Your task to perform on an android device: change the clock display to show seconds Image 0: 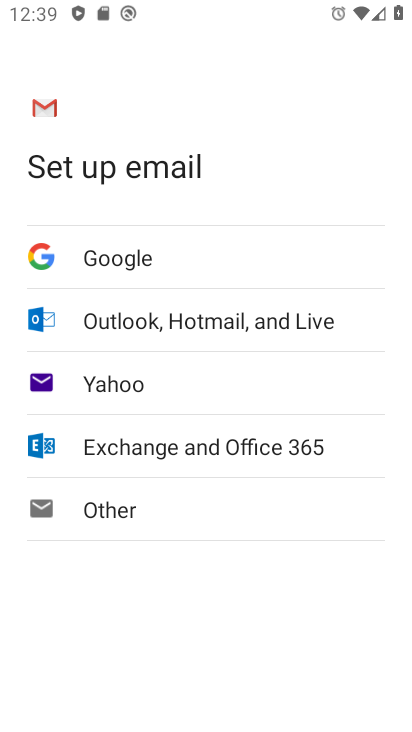
Step 0: press home button
Your task to perform on an android device: change the clock display to show seconds Image 1: 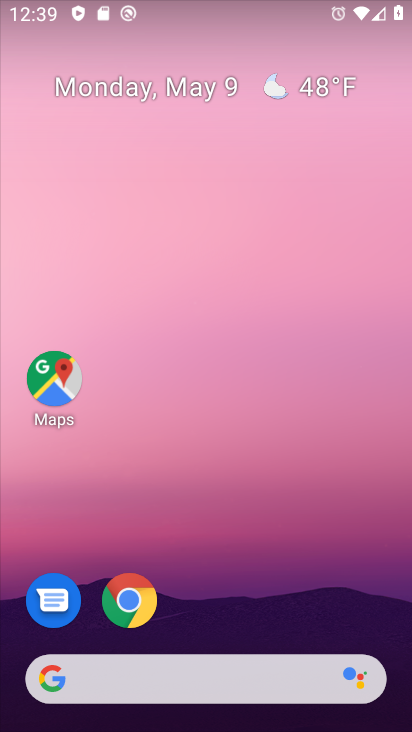
Step 1: drag from (285, 533) to (250, 11)
Your task to perform on an android device: change the clock display to show seconds Image 2: 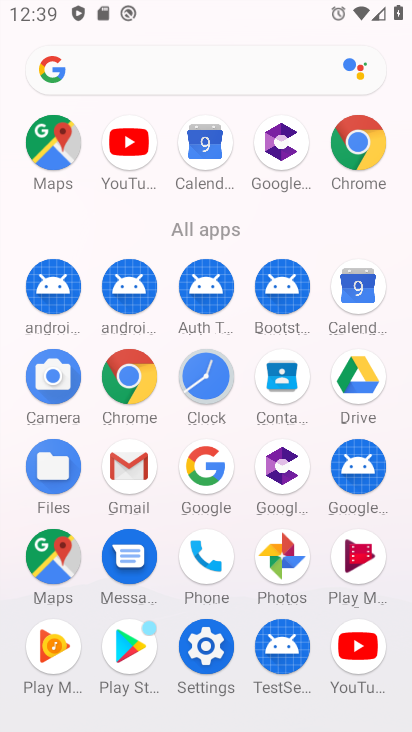
Step 2: drag from (105, 498) to (183, 164)
Your task to perform on an android device: change the clock display to show seconds Image 3: 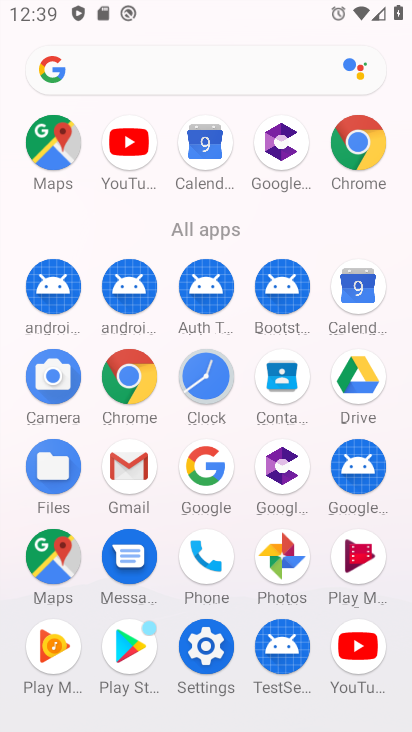
Step 3: drag from (105, 512) to (275, 176)
Your task to perform on an android device: change the clock display to show seconds Image 4: 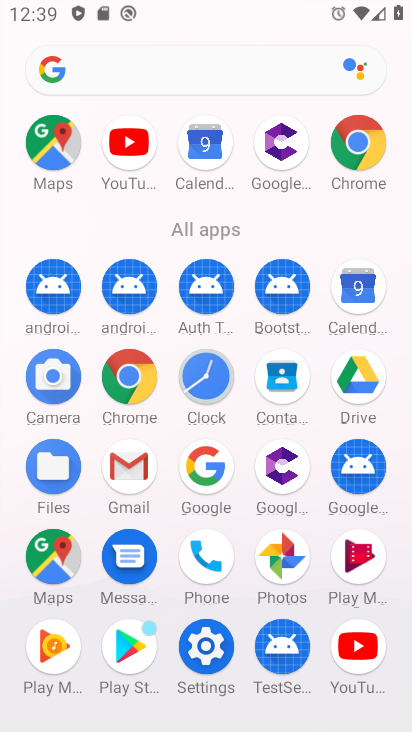
Step 4: drag from (201, 422) to (316, 9)
Your task to perform on an android device: change the clock display to show seconds Image 5: 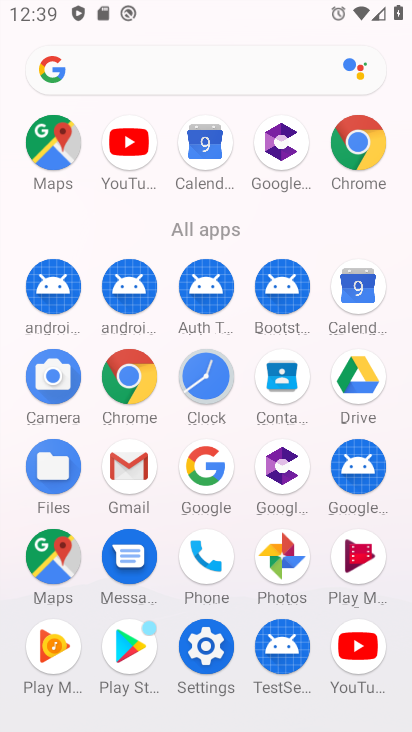
Step 5: click (88, 71)
Your task to perform on an android device: change the clock display to show seconds Image 6: 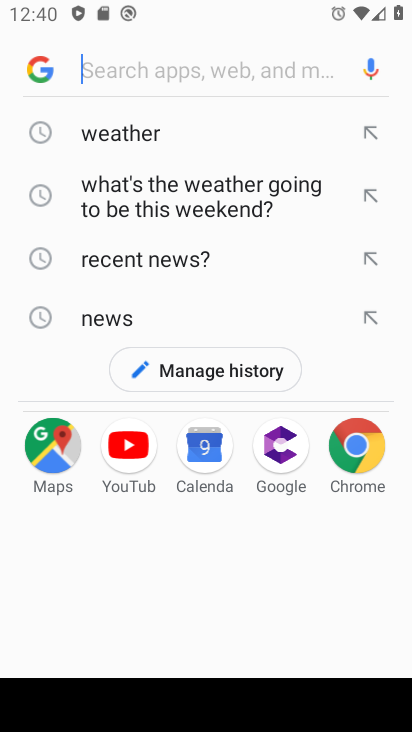
Step 6: type "change the clock display"
Your task to perform on an android device: change the clock display to show seconds Image 7: 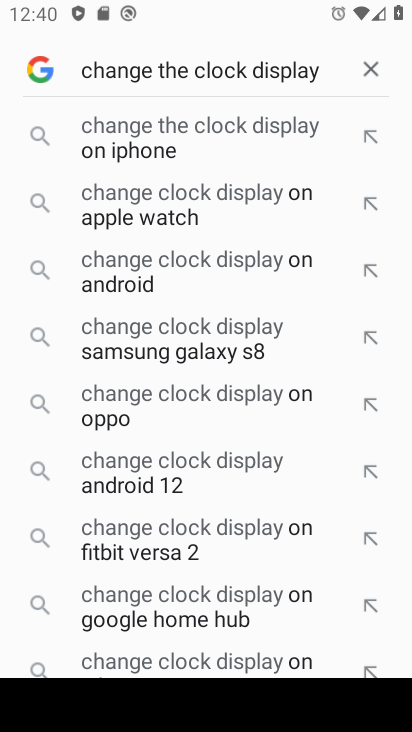
Step 7: type "change the clock display"
Your task to perform on an android device: change the clock display to show seconds Image 8: 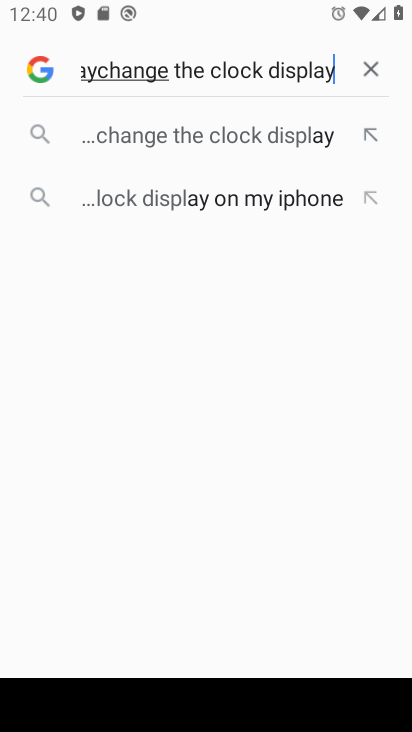
Step 8: type ""
Your task to perform on an android device: change the clock display to show seconds Image 9: 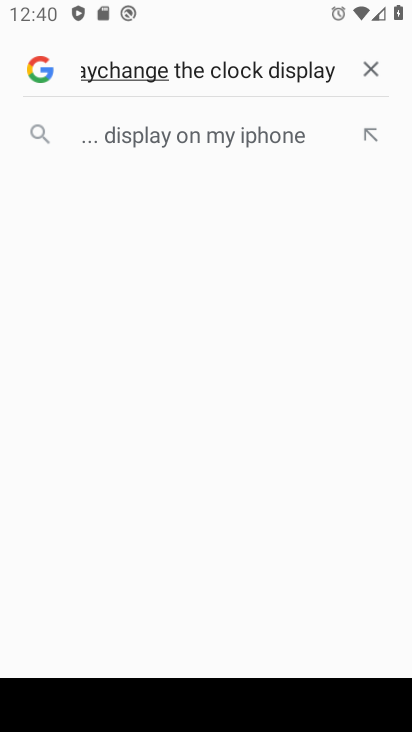
Step 9: type ""
Your task to perform on an android device: change the clock display to show seconds Image 10: 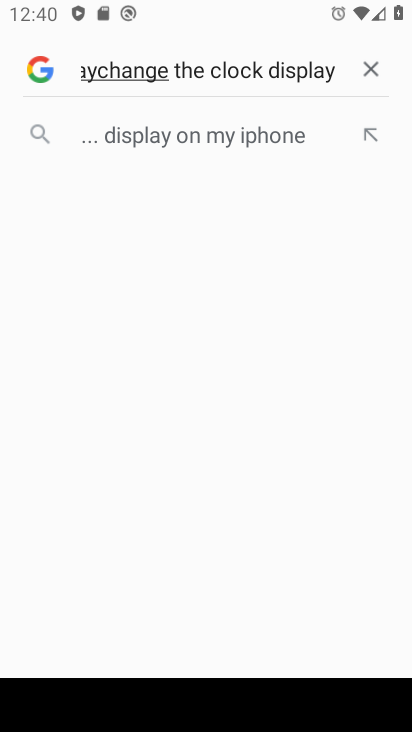
Step 10: type ""
Your task to perform on an android device: change the clock display to show seconds Image 11: 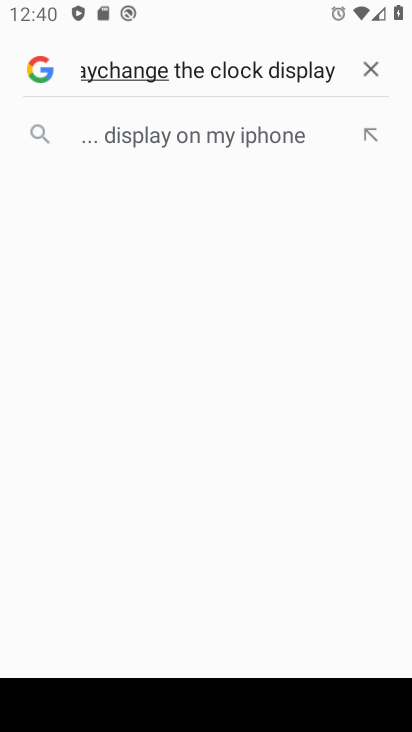
Step 11: type ""
Your task to perform on an android device: change the clock display to show seconds Image 12: 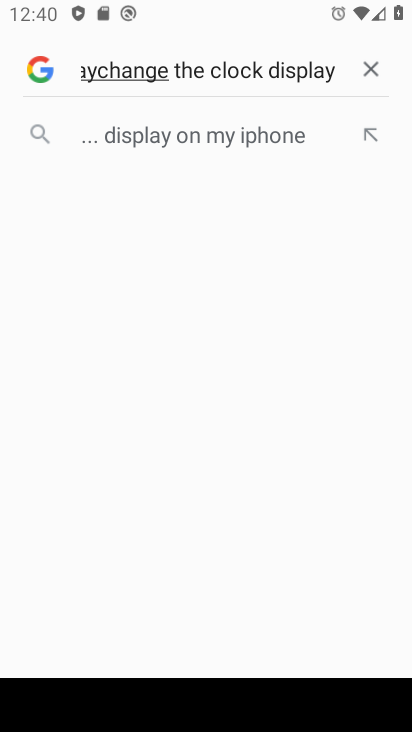
Step 12: type ""
Your task to perform on an android device: change the clock display to show seconds Image 13: 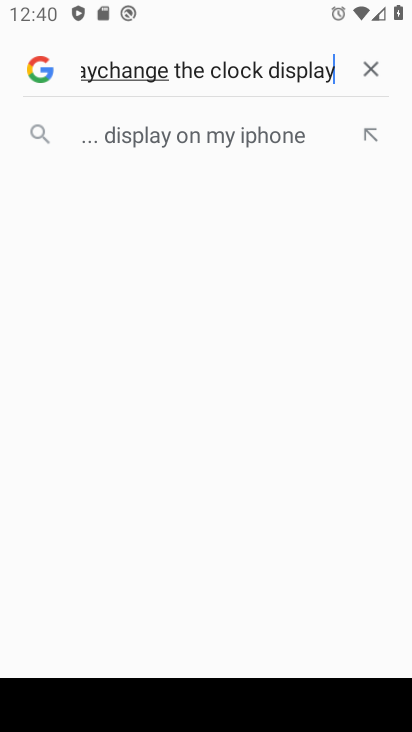
Step 13: type ""
Your task to perform on an android device: change the clock display to show seconds Image 14: 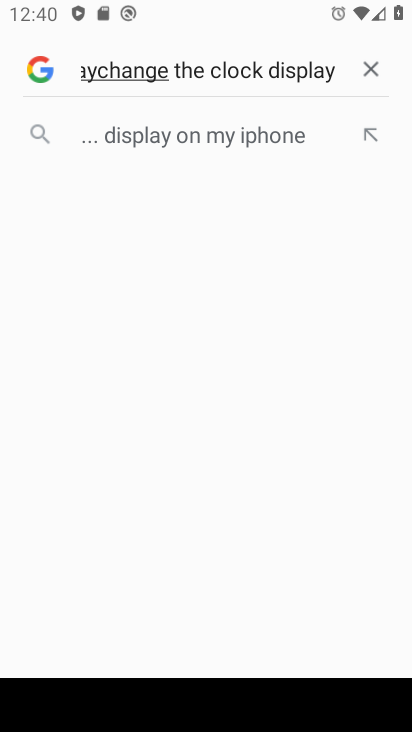
Step 14: type ""
Your task to perform on an android device: change the clock display to show seconds Image 15: 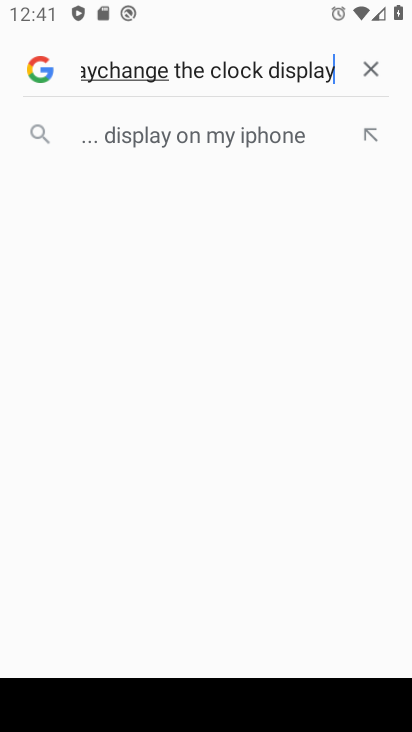
Step 15: task complete